Your task to perform on an android device: Check the weather Image 0: 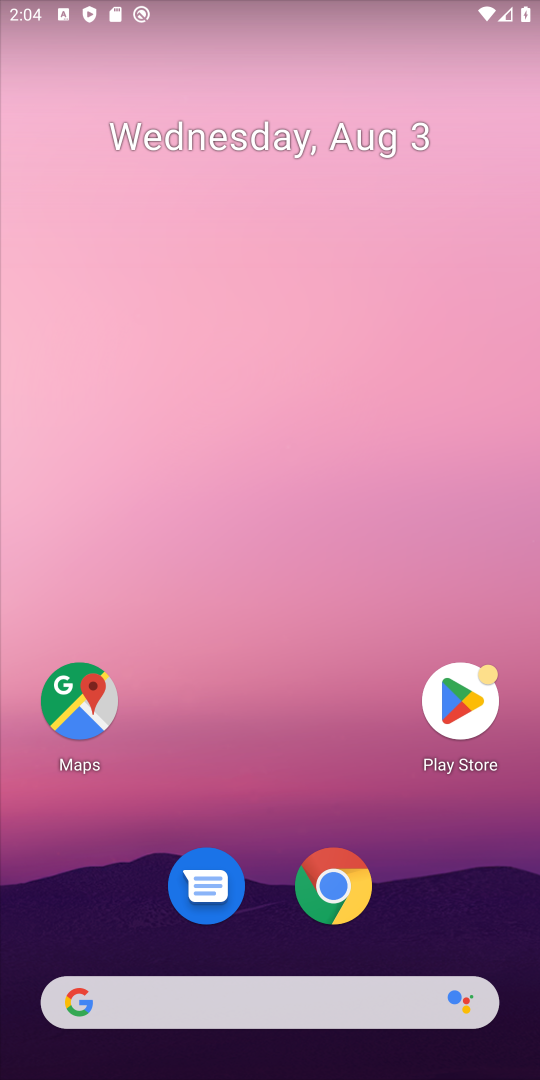
Step 0: drag from (338, 447) to (305, 13)
Your task to perform on an android device: Check the weather Image 1: 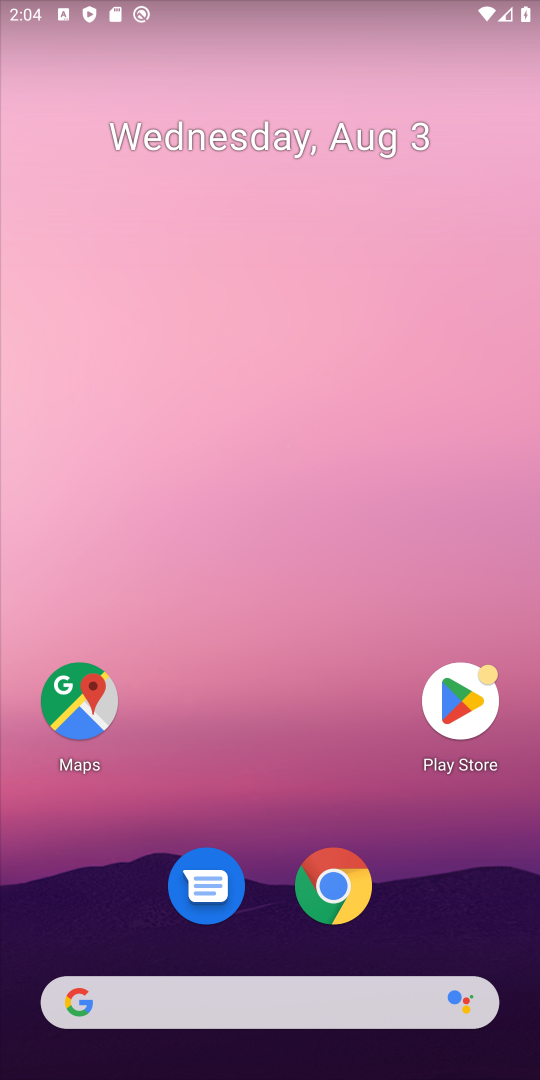
Step 1: drag from (332, 940) to (370, 0)
Your task to perform on an android device: Check the weather Image 2: 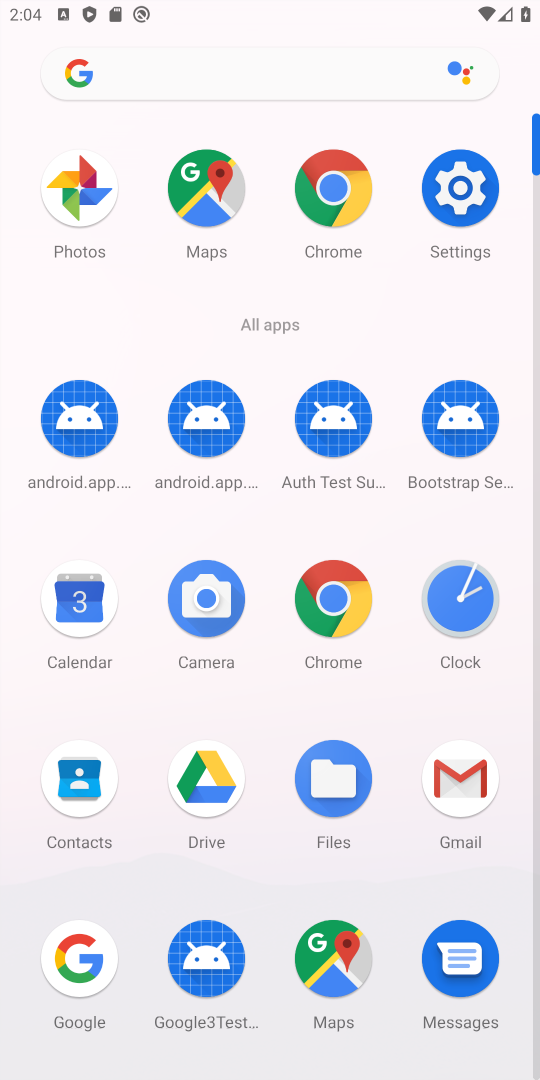
Step 2: click (328, 604)
Your task to perform on an android device: Check the weather Image 3: 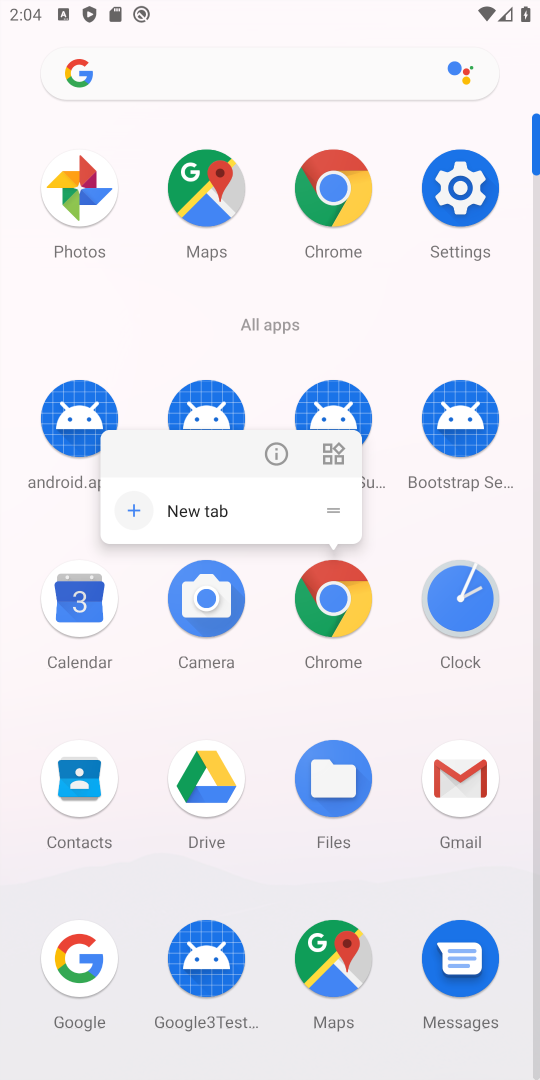
Step 3: click (328, 604)
Your task to perform on an android device: Check the weather Image 4: 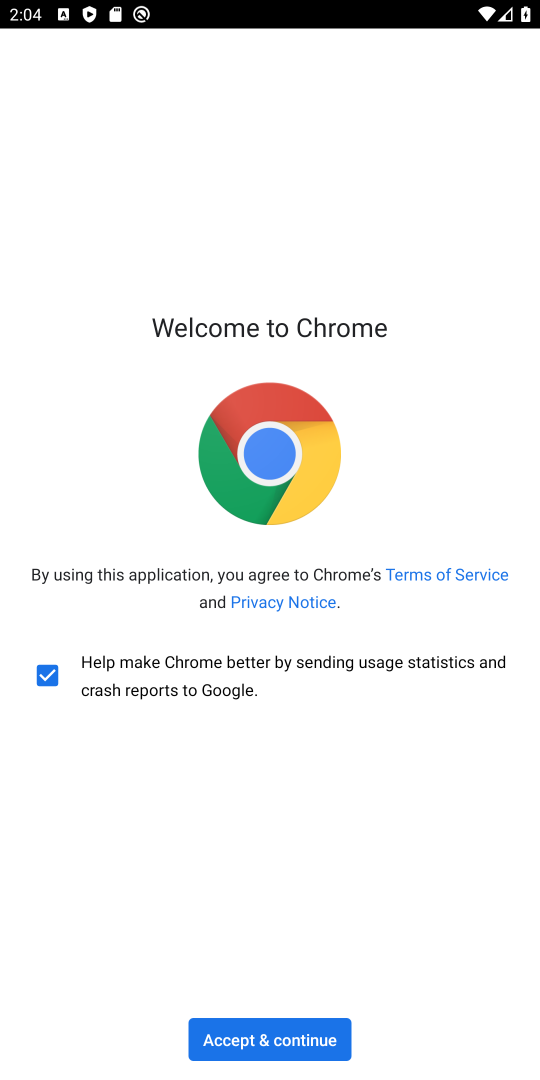
Step 4: click (282, 1033)
Your task to perform on an android device: Check the weather Image 5: 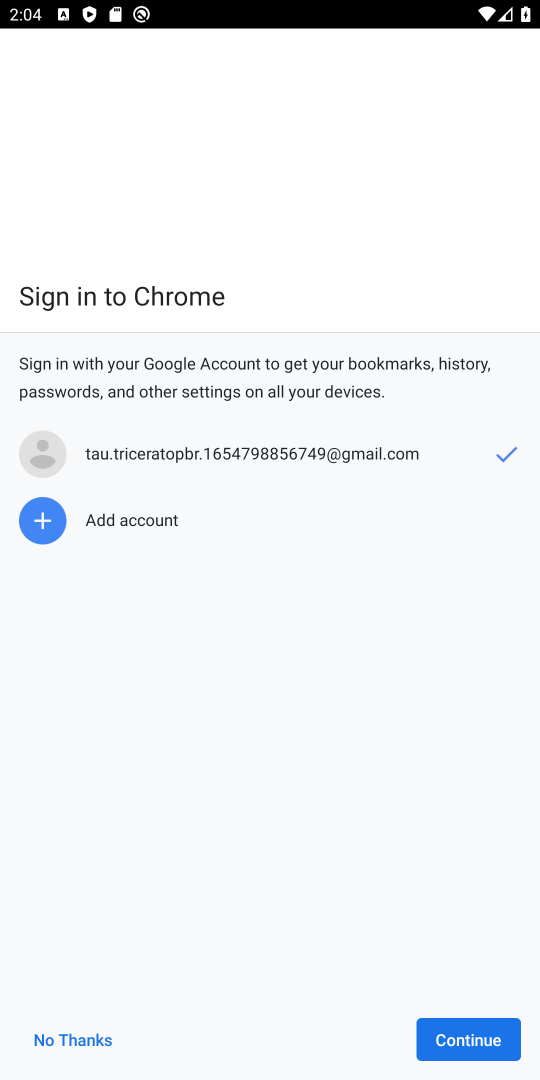
Step 5: click (77, 1034)
Your task to perform on an android device: Check the weather Image 6: 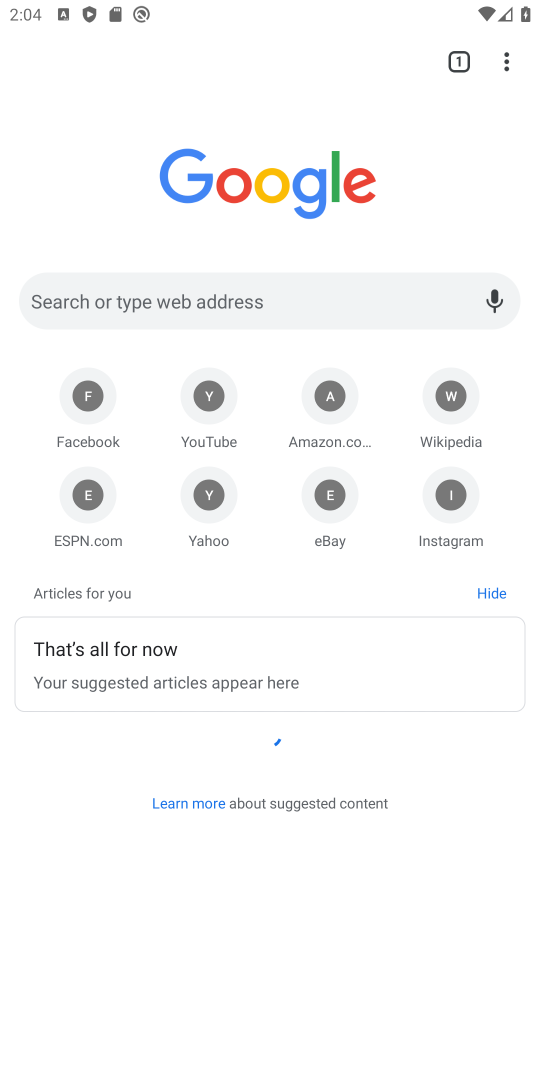
Step 6: click (298, 51)
Your task to perform on an android device: Check the weather Image 7: 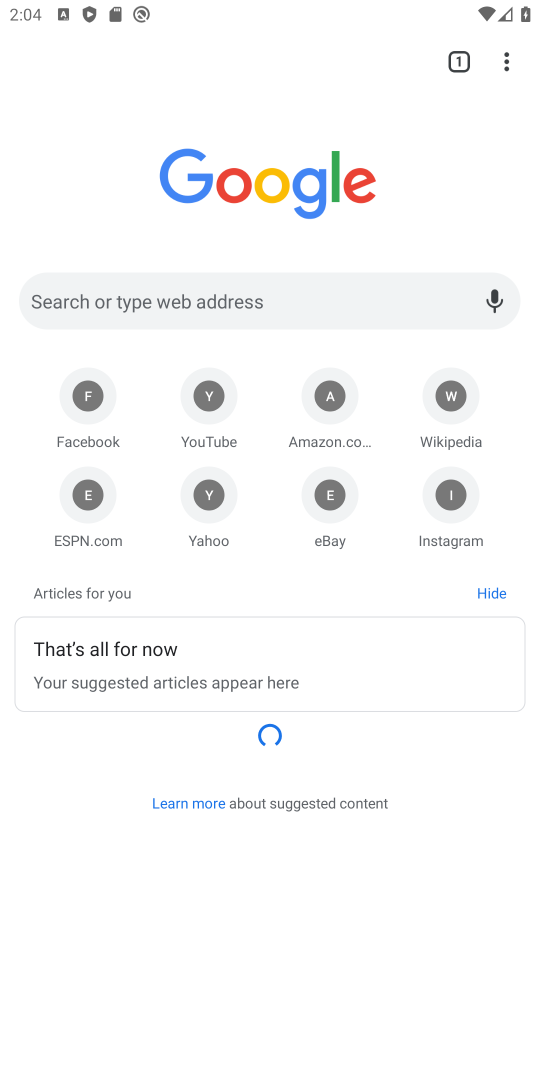
Step 7: click (298, 51)
Your task to perform on an android device: Check the weather Image 8: 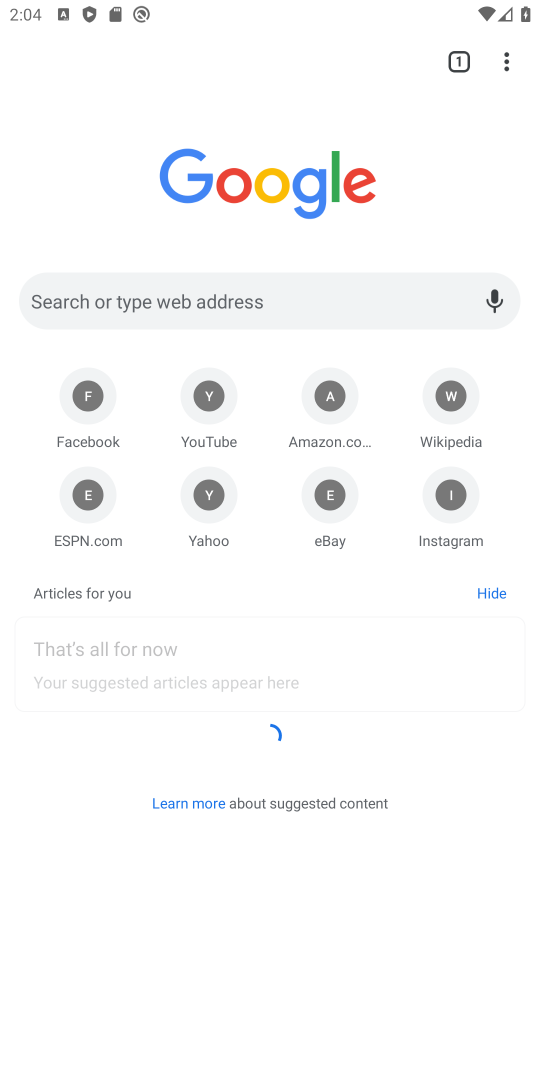
Step 8: click (326, 290)
Your task to perform on an android device: Check the weather Image 9: 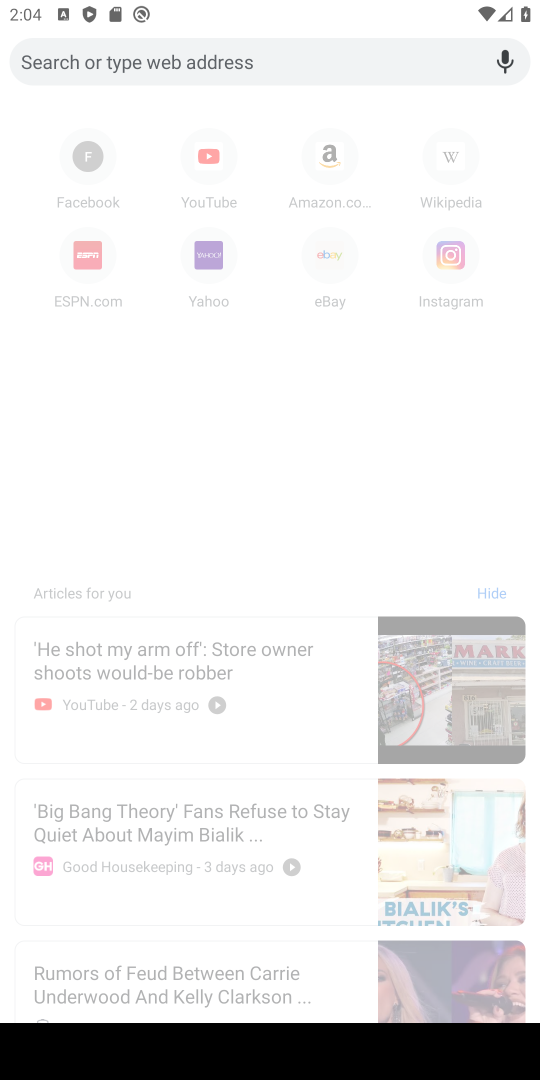
Step 9: type "check the weather"
Your task to perform on an android device: Check the weather Image 10: 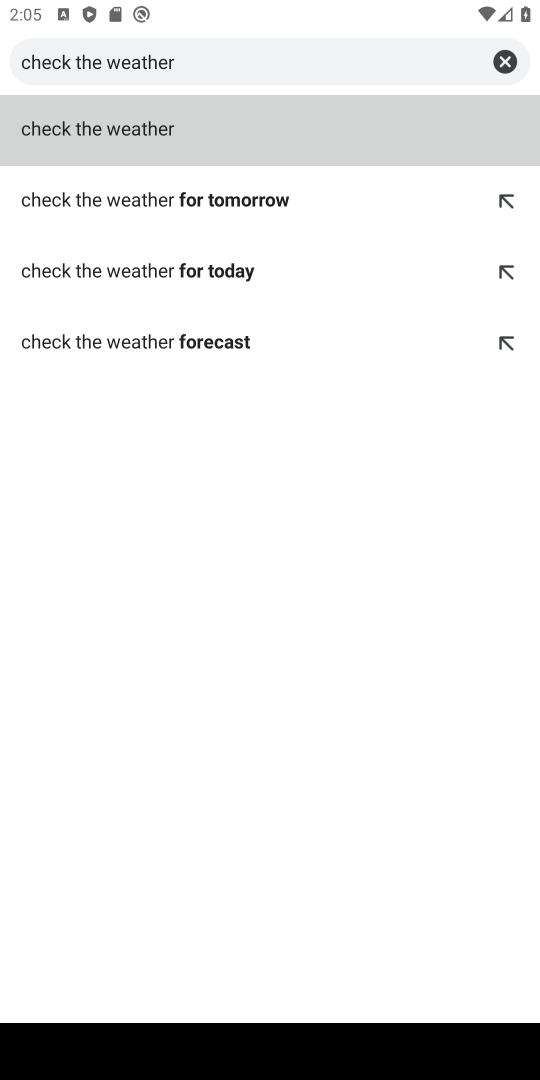
Step 10: click (297, 146)
Your task to perform on an android device: Check the weather Image 11: 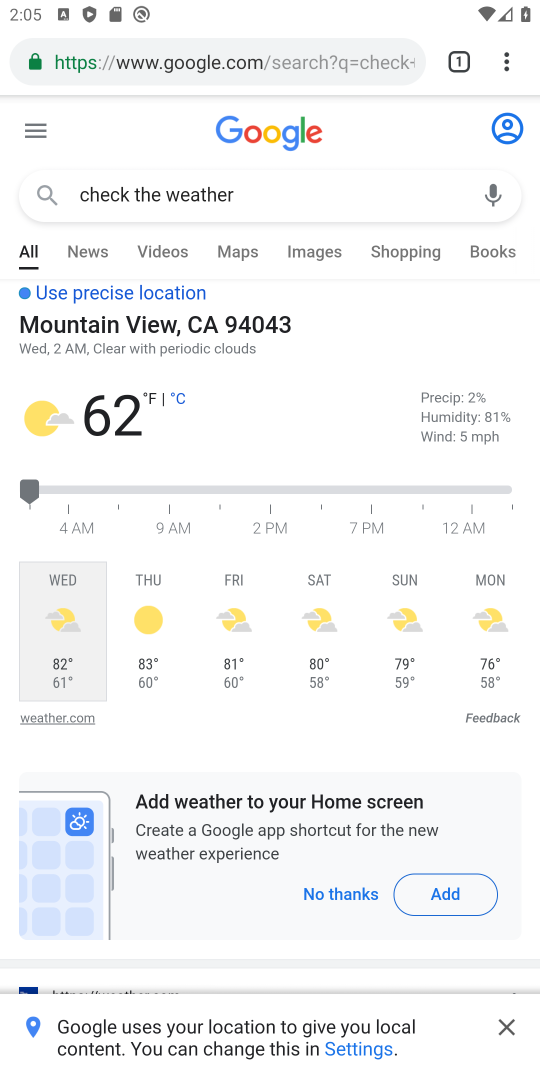
Step 11: task complete